Your task to perform on an android device: check storage Image 0: 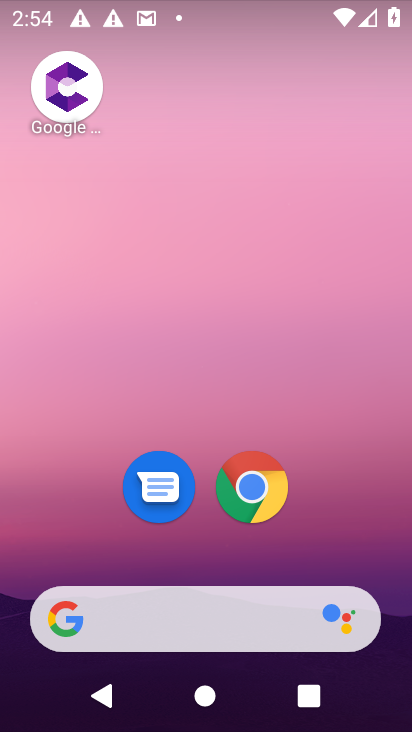
Step 0: drag from (163, 570) to (164, 114)
Your task to perform on an android device: check storage Image 1: 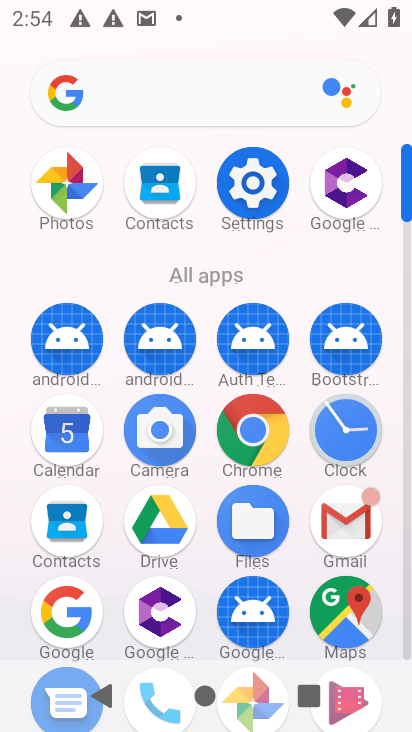
Step 1: click (255, 192)
Your task to perform on an android device: check storage Image 2: 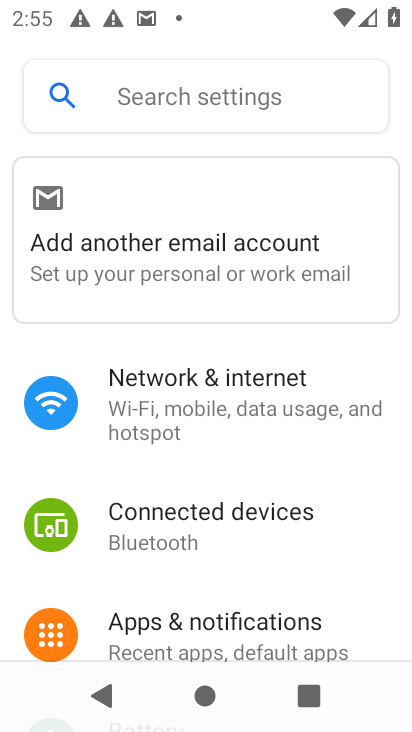
Step 2: drag from (216, 585) to (239, 151)
Your task to perform on an android device: check storage Image 3: 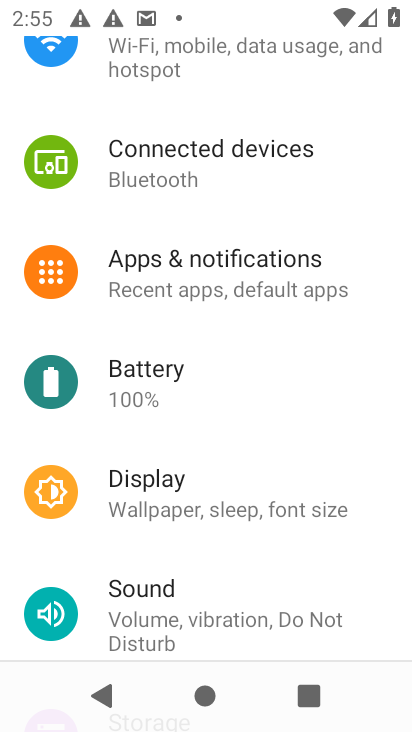
Step 3: drag from (173, 565) to (227, 217)
Your task to perform on an android device: check storage Image 4: 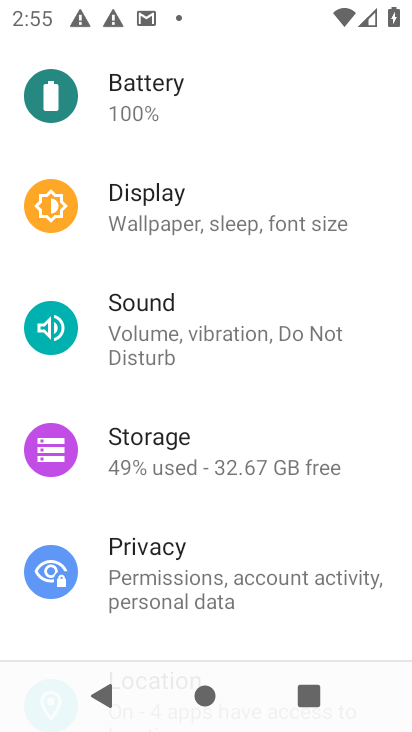
Step 4: click (169, 457)
Your task to perform on an android device: check storage Image 5: 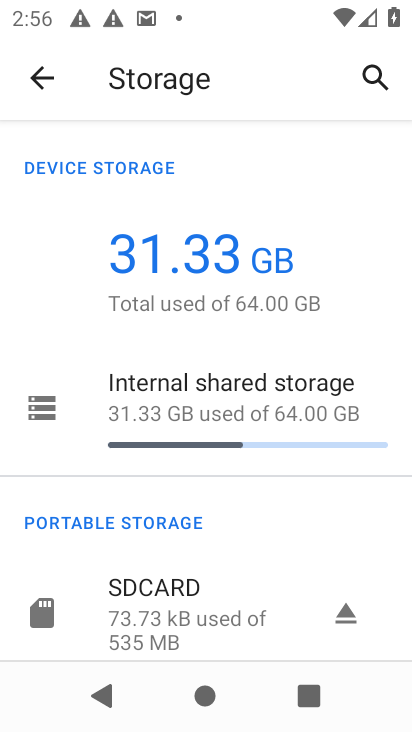
Step 5: task complete